Your task to perform on an android device: Google the capital of Panama Image 0: 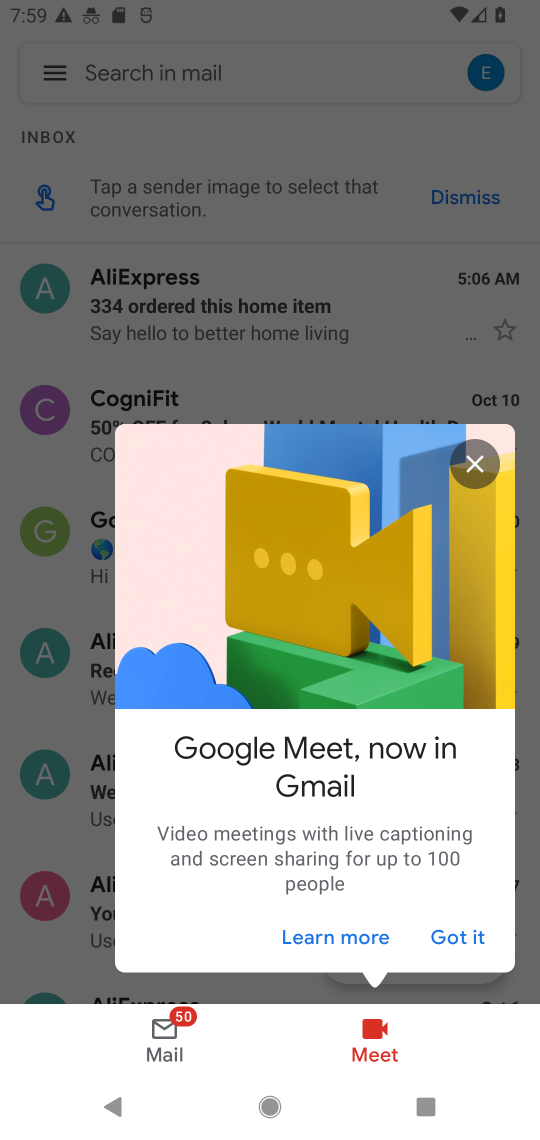
Step 0: press home button
Your task to perform on an android device: Google the capital of Panama Image 1: 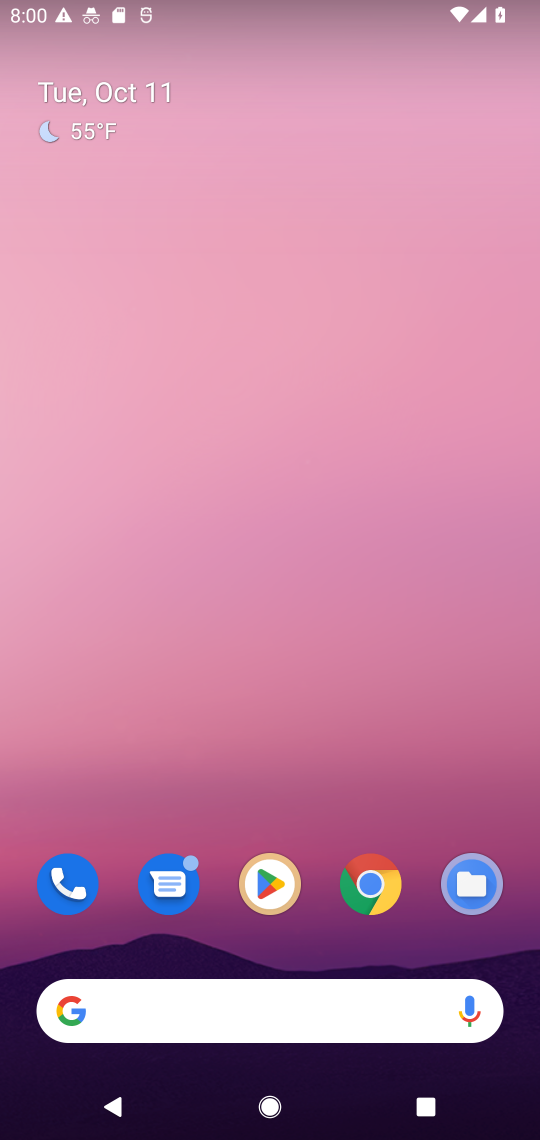
Step 1: click (369, 888)
Your task to perform on an android device: Google the capital of Panama Image 2: 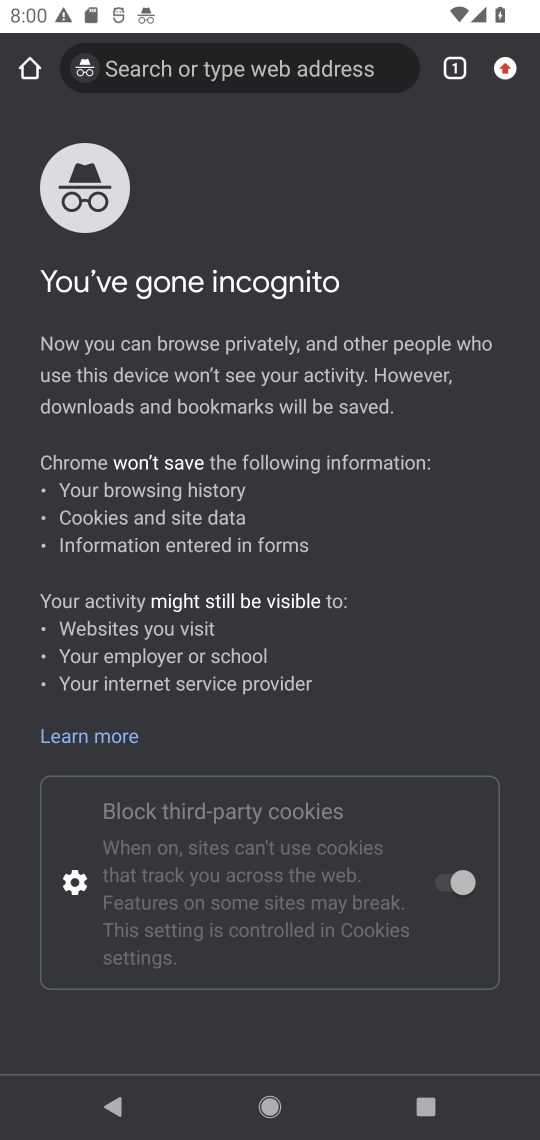
Step 2: click (321, 61)
Your task to perform on an android device: Google the capital of Panama Image 3: 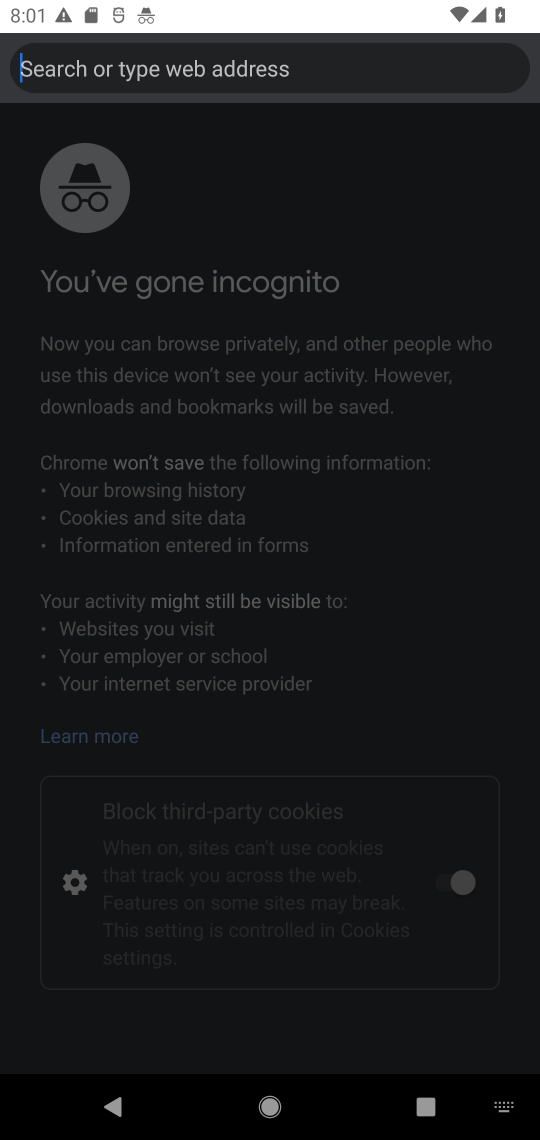
Step 3: type "capital of Panama"
Your task to perform on an android device: Google the capital of Panama Image 4: 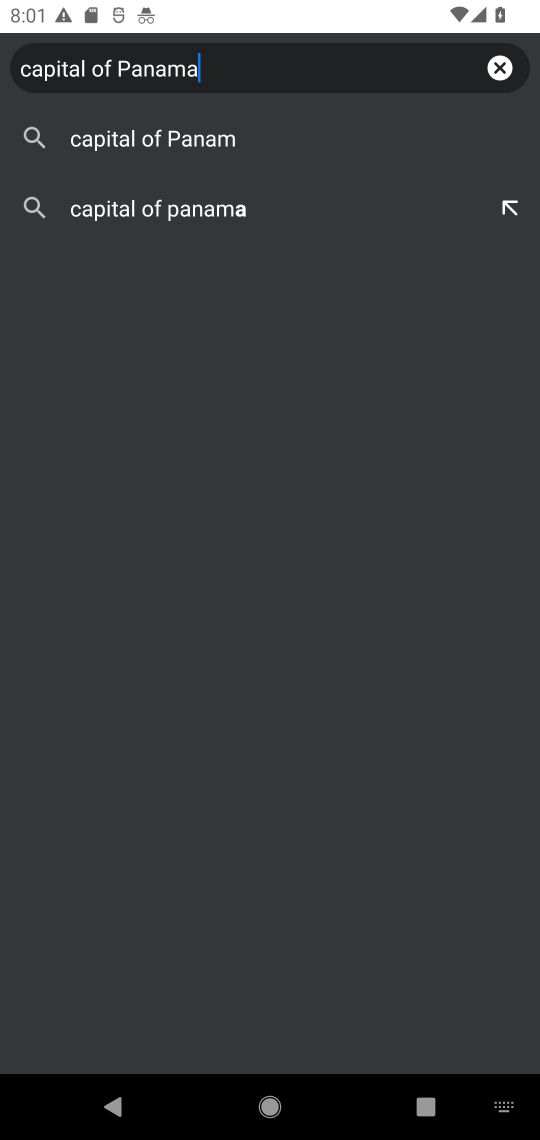
Step 4: type ""
Your task to perform on an android device: Google the capital of Panama Image 5: 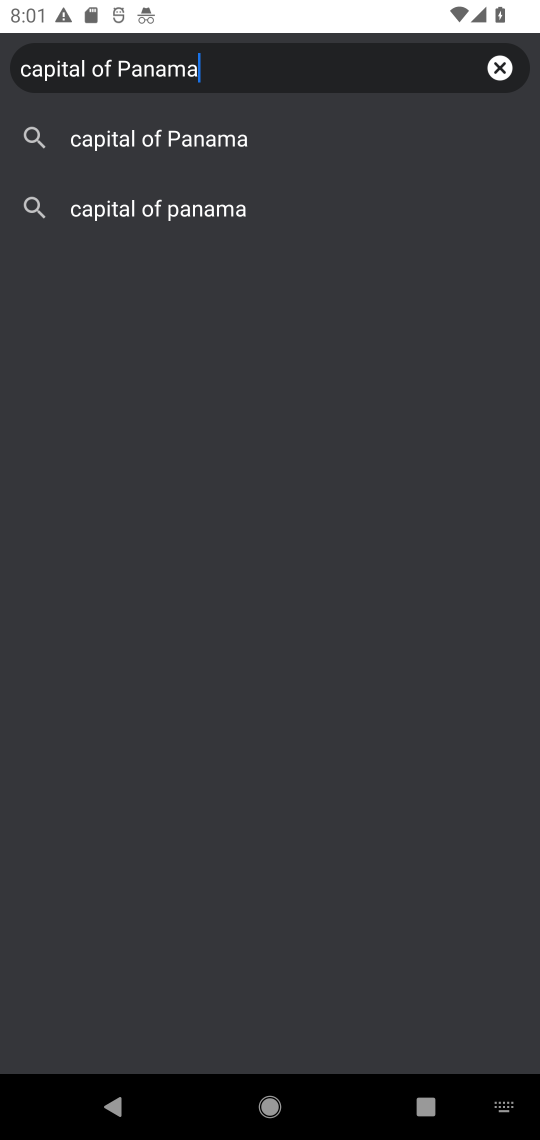
Step 5: click (213, 146)
Your task to perform on an android device: Google the capital of Panama Image 6: 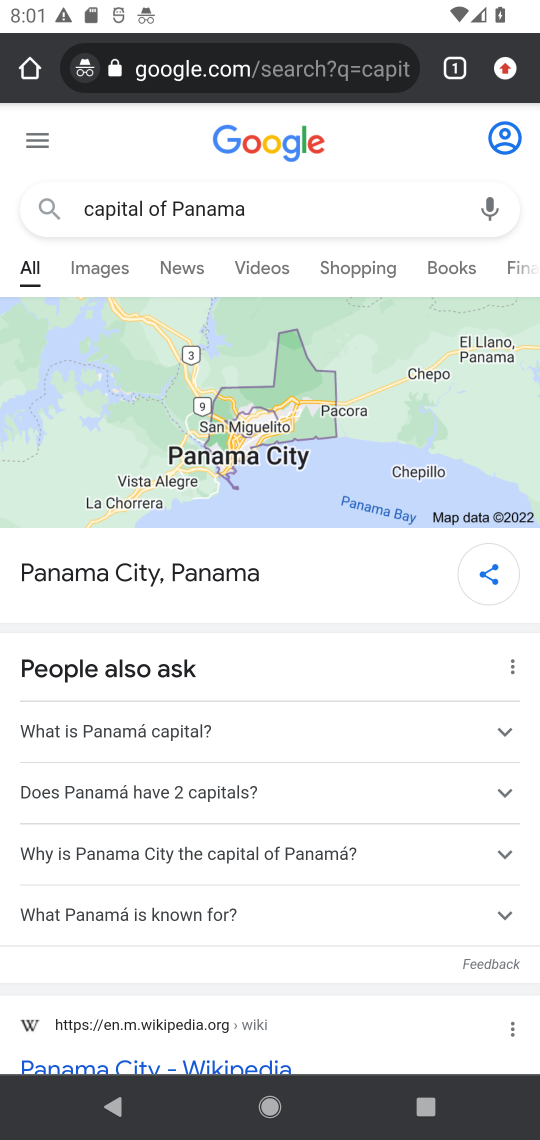
Step 6: drag from (264, 780) to (281, 557)
Your task to perform on an android device: Google the capital of Panama Image 7: 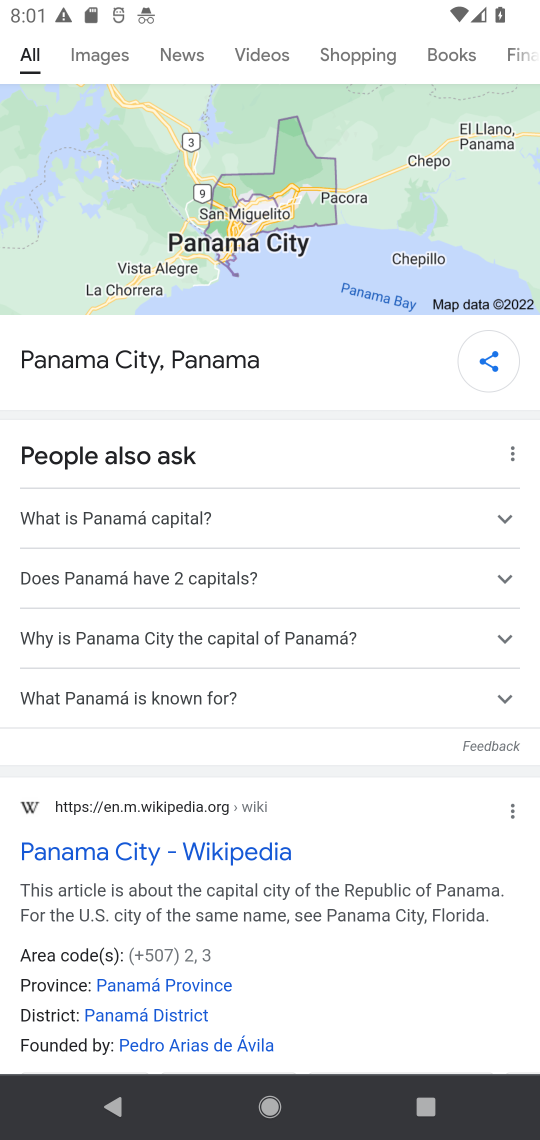
Step 7: click (472, 527)
Your task to perform on an android device: Google the capital of Panama Image 8: 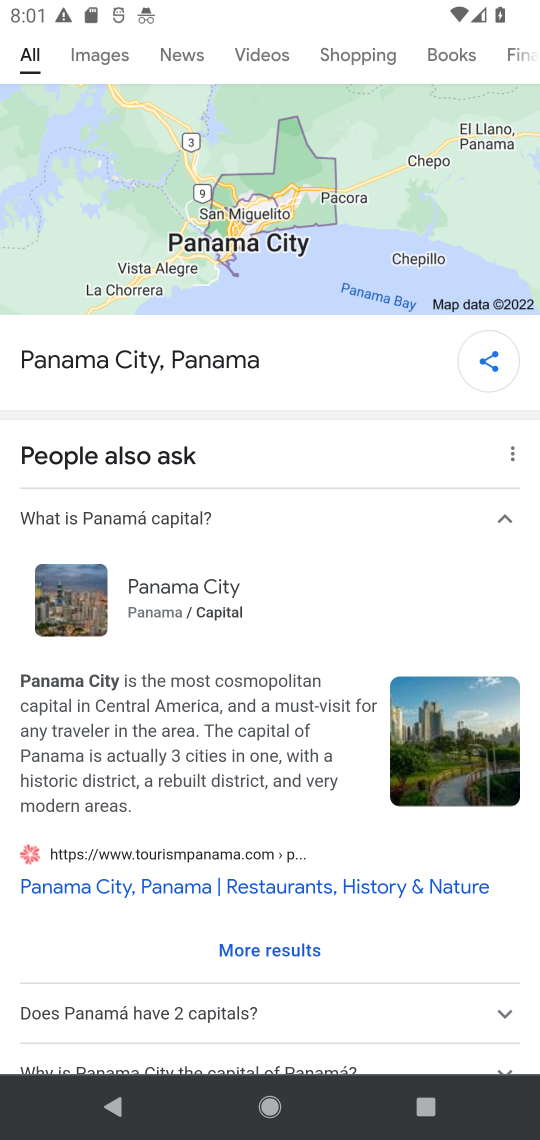
Step 8: task complete